Your task to perform on an android device: change notifications settings Image 0: 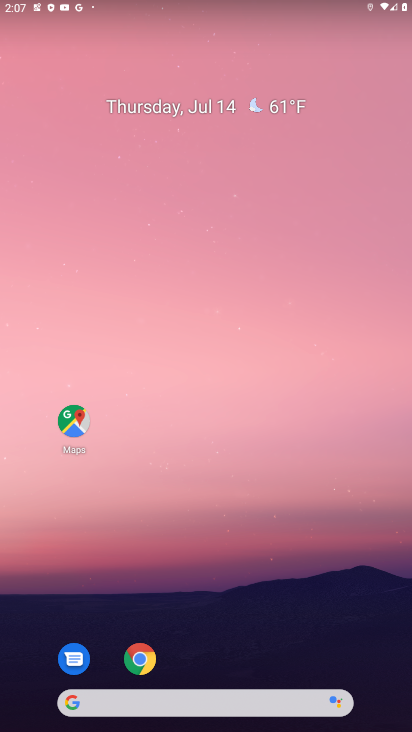
Step 0: drag from (209, 669) to (137, 134)
Your task to perform on an android device: change notifications settings Image 1: 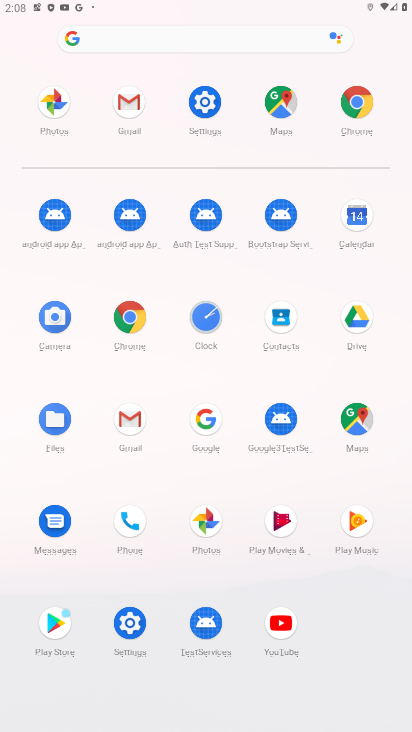
Step 1: click (131, 621)
Your task to perform on an android device: change notifications settings Image 2: 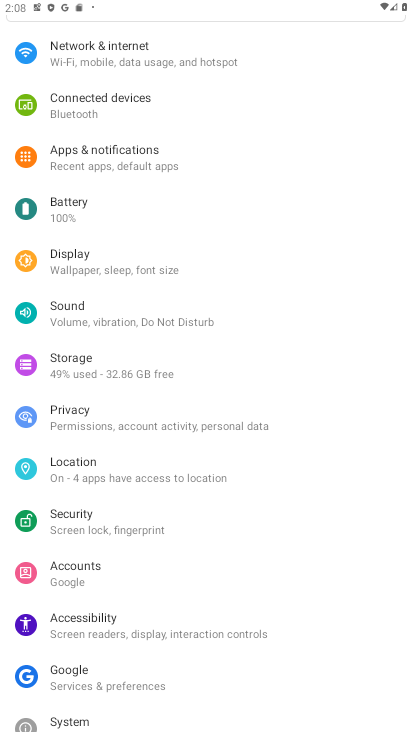
Step 2: click (106, 154)
Your task to perform on an android device: change notifications settings Image 3: 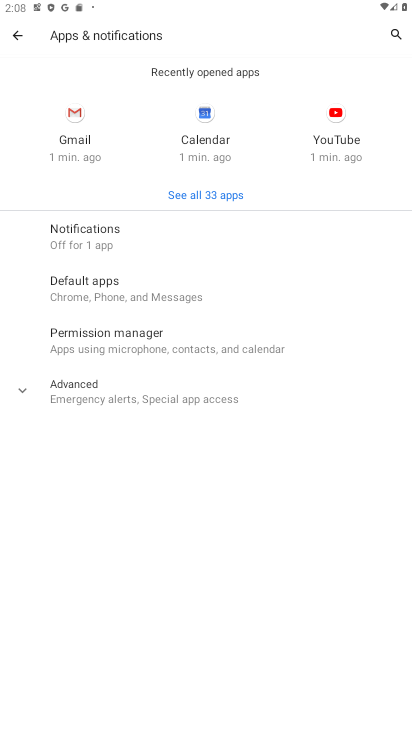
Step 3: click (98, 236)
Your task to perform on an android device: change notifications settings Image 4: 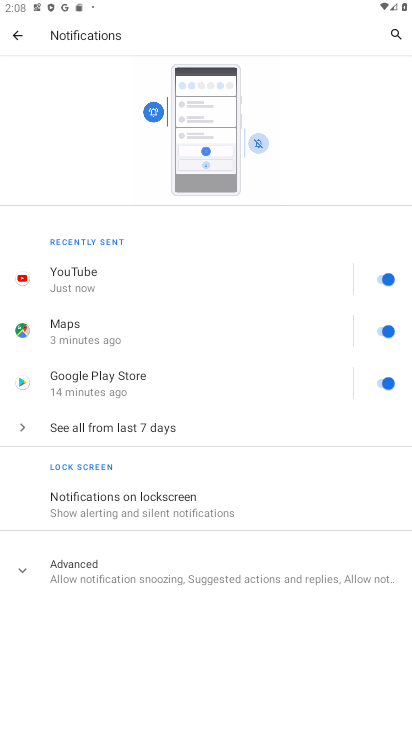
Step 4: click (59, 432)
Your task to perform on an android device: change notifications settings Image 5: 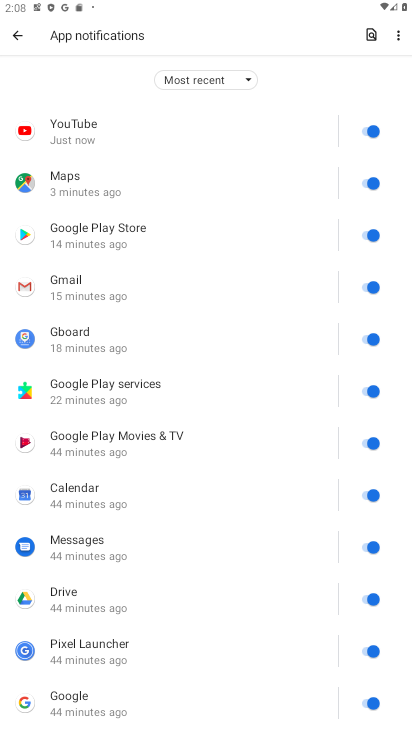
Step 5: click (216, 77)
Your task to perform on an android device: change notifications settings Image 6: 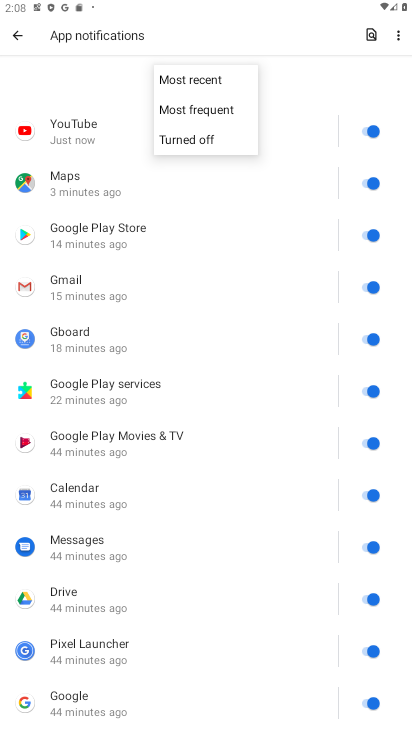
Step 6: click (207, 141)
Your task to perform on an android device: change notifications settings Image 7: 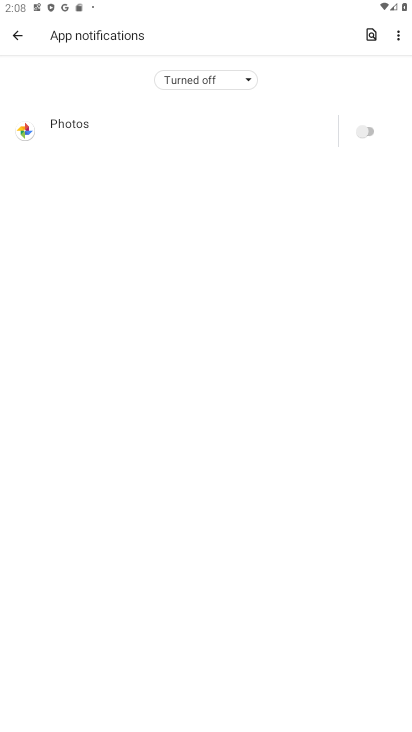
Step 7: task complete